Your task to perform on an android device: create a new album in the google photos Image 0: 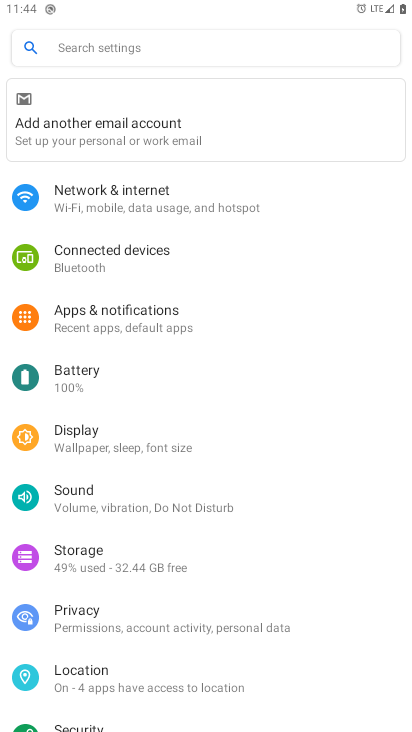
Step 0: press home button
Your task to perform on an android device: create a new album in the google photos Image 1: 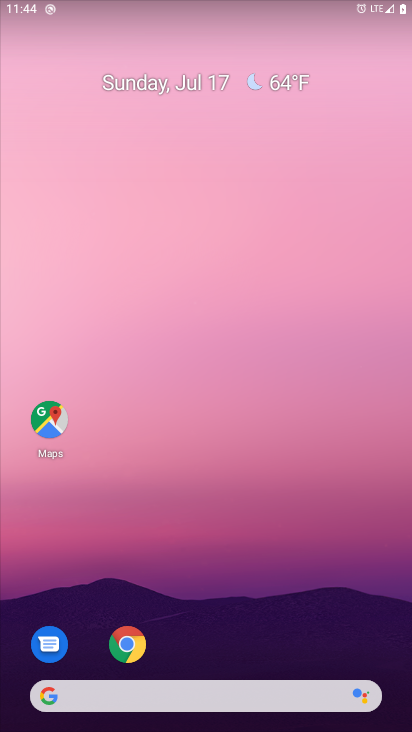
Step 1: drag from (258, 642) to (234, 154)
Your task to perform on an android device: create a new album in the google photos Image 2: 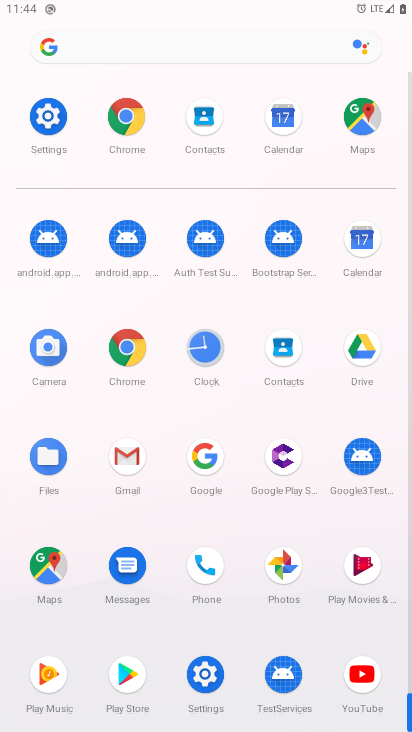
Step 2: click (288, 572)
Your task to perform on an android device: create a new album in the google photos Image 3: 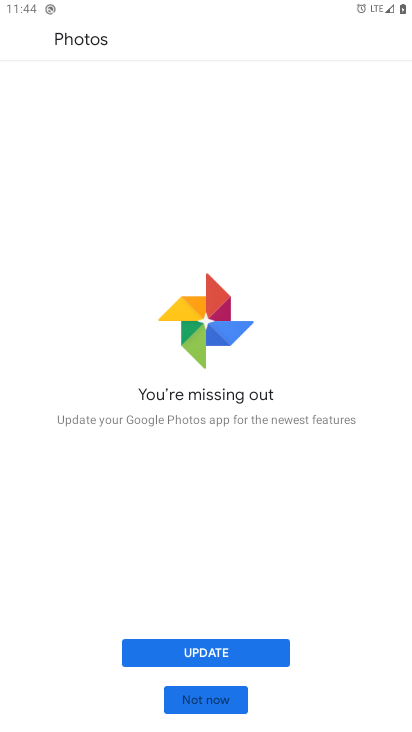
Step 3: click (208, 647)
Your task to perform on an android device: create a new album in the google photos Image 4: 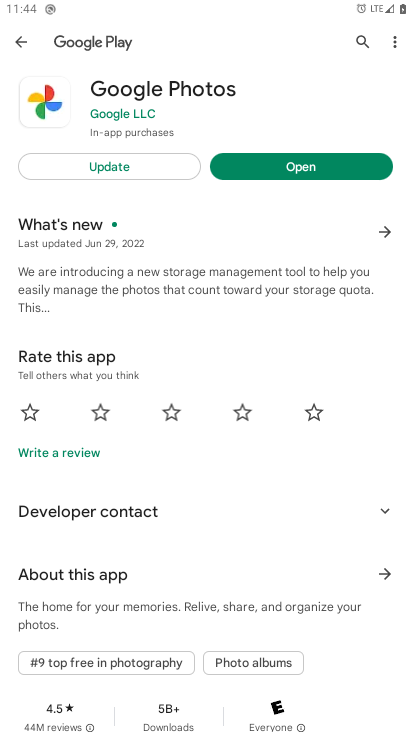
Step 4: click (118, 160)
Your task to perform on an android device: create a new album in the google photos Image 5: 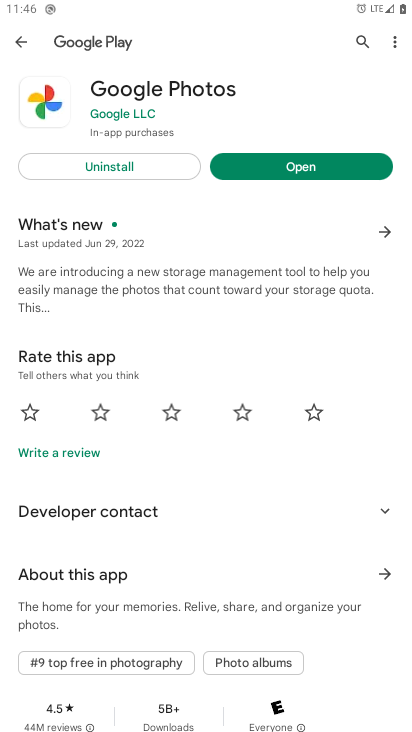
Step 5: click (307, 170)
Your task to perform on an android device: create a new album in the google photos Image 6: 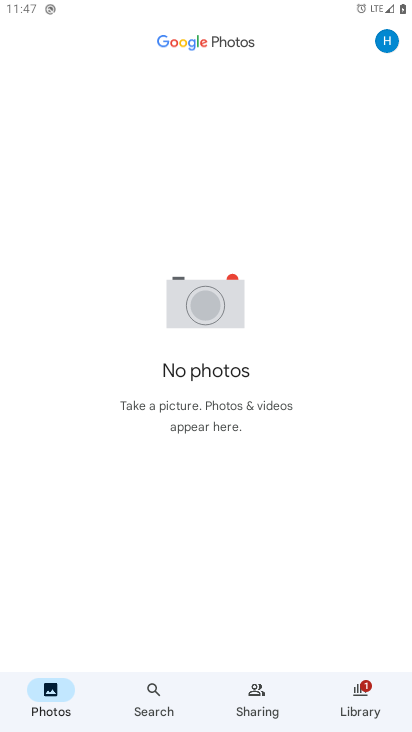
Step 6: task complete